Your task to perform on an android device: Open the Play Movies app and select the watchlist tab. Image 0: 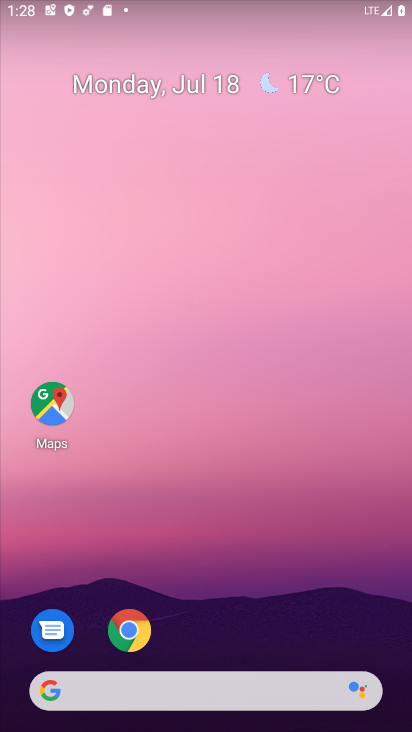
Step 0: drag from (284, 598) to (300, 17)
Your task to perform on an android device: Open the Play Movies app and select the watchlist tab. Image 1: 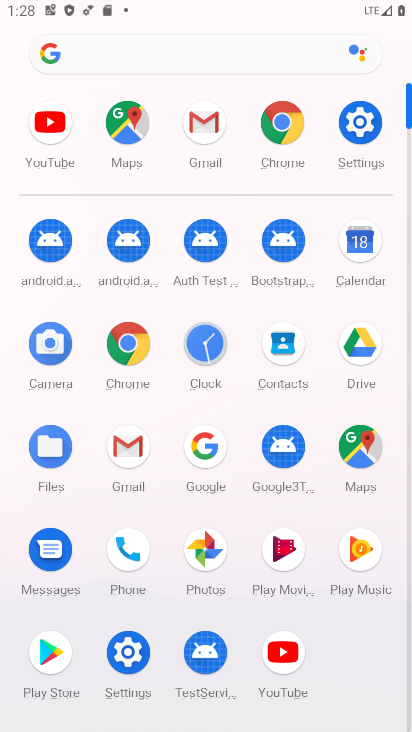
Step 1: click (281, 558)
Your task to perform on an android device: Open the Play Movies app and select the watchlist tab. Image 2: 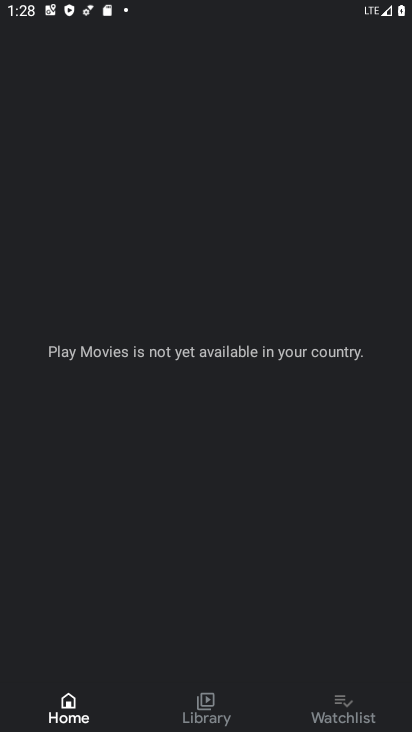
Step 2: click (352, 723)
Your task to perform on an android device: Open the Play Movies app and select the watchlist tab. Image 3: 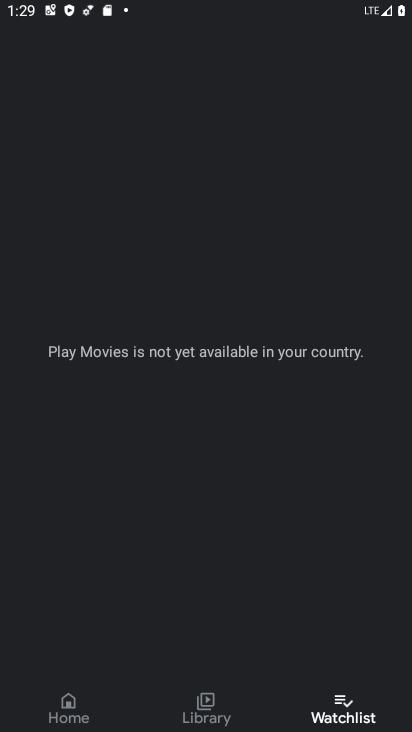
Step 3: task complete